Your task to perform on an android device: show emergency info Image 0: 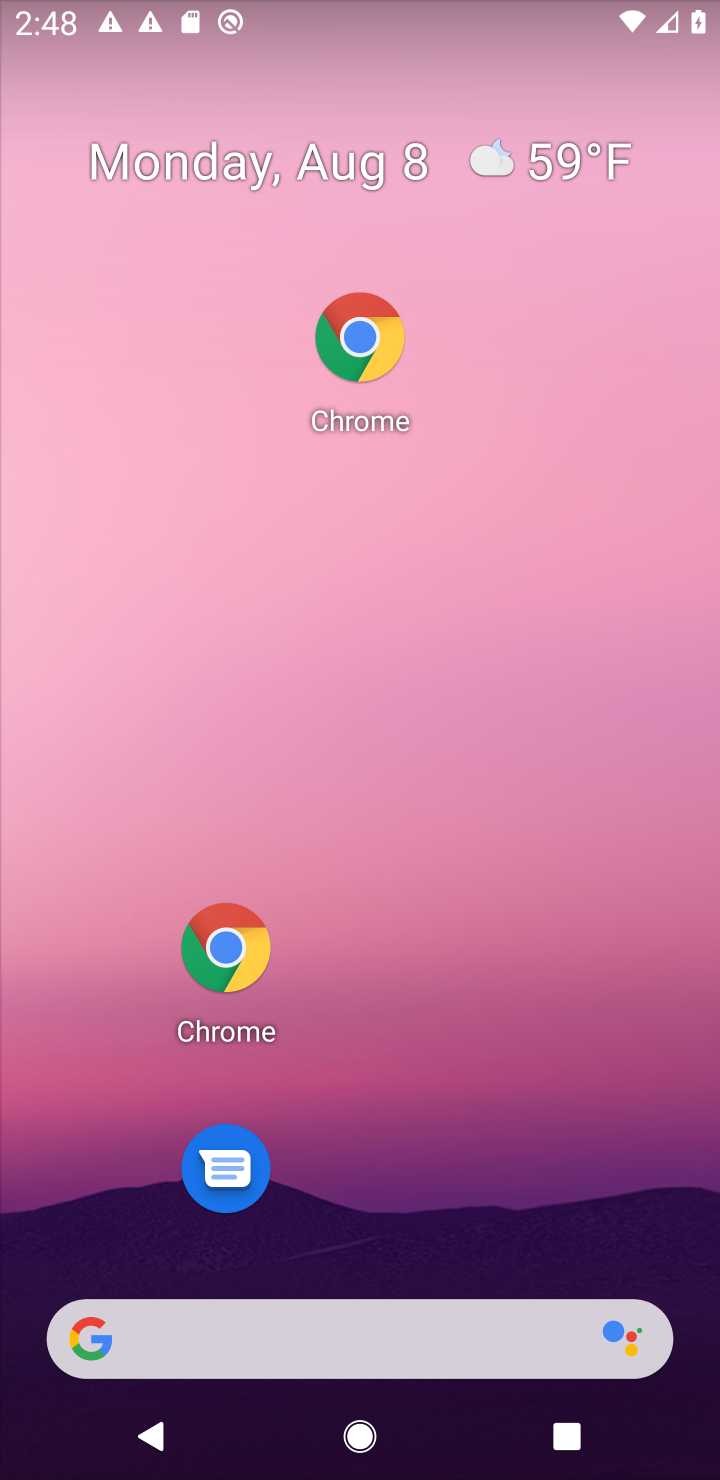
Step 0: drag from (504, 1238) to (458, 123)
Your task to perform on an android device: show emergency info Image 1: 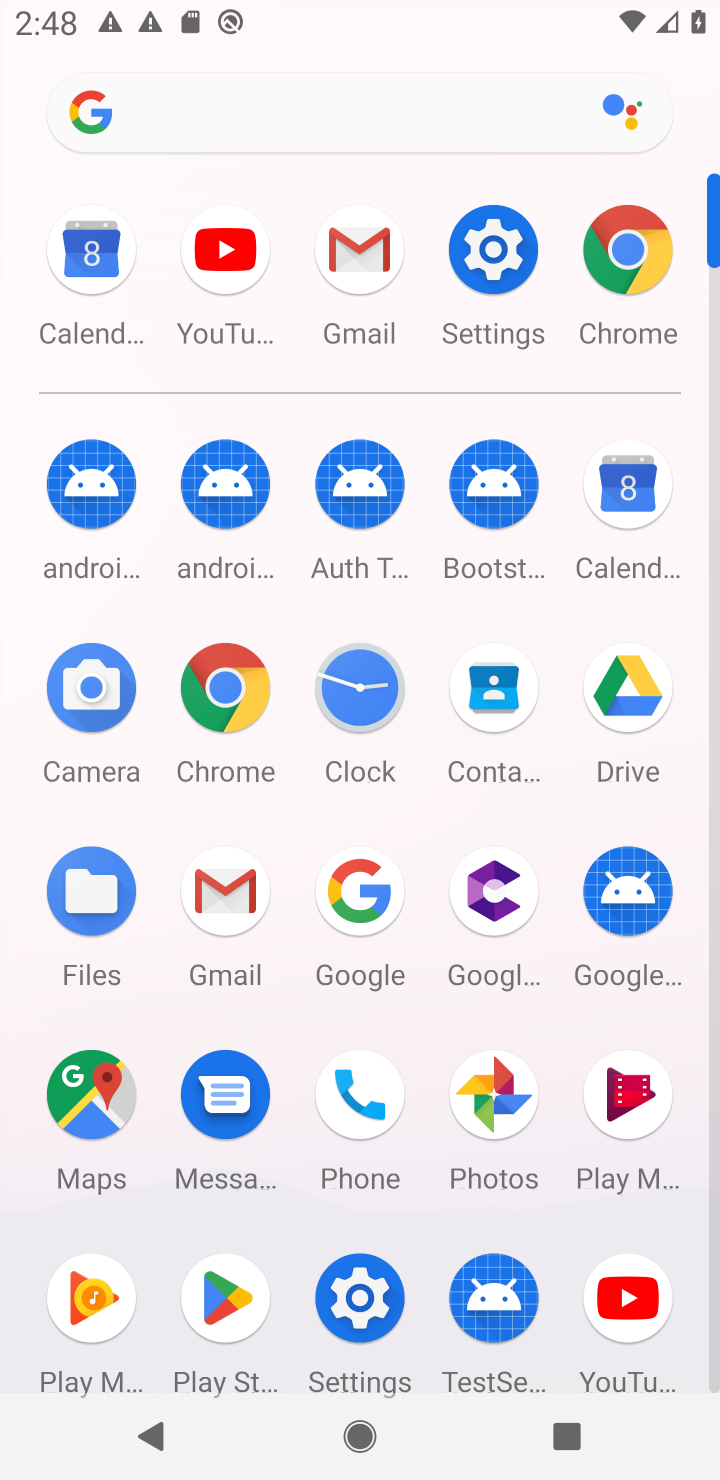
Step 1: click (505, 279)
Your task to perform on an android device: show emergency info Image 2: 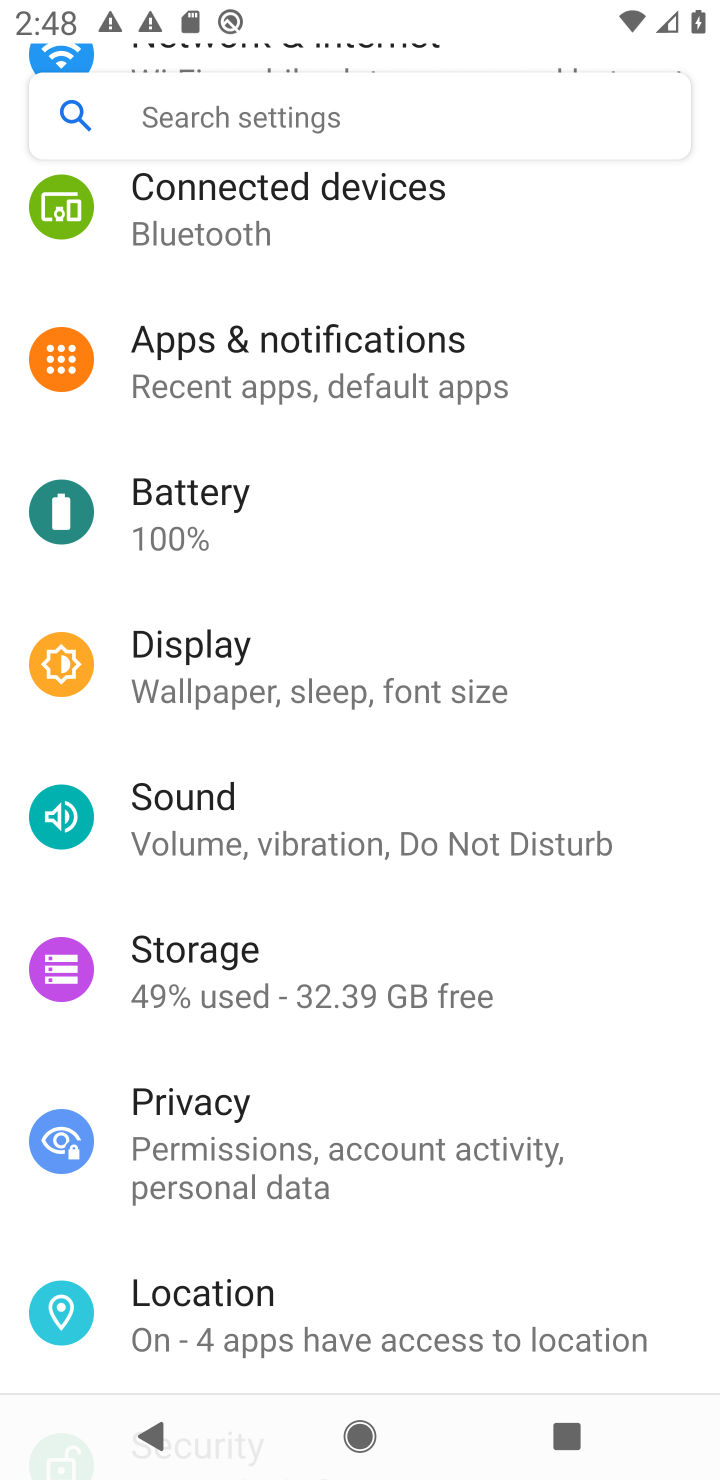
Step 2: drag from (384, 600) to (440, 1260)
Your task to perform on an android device: show emergency info Image 3: 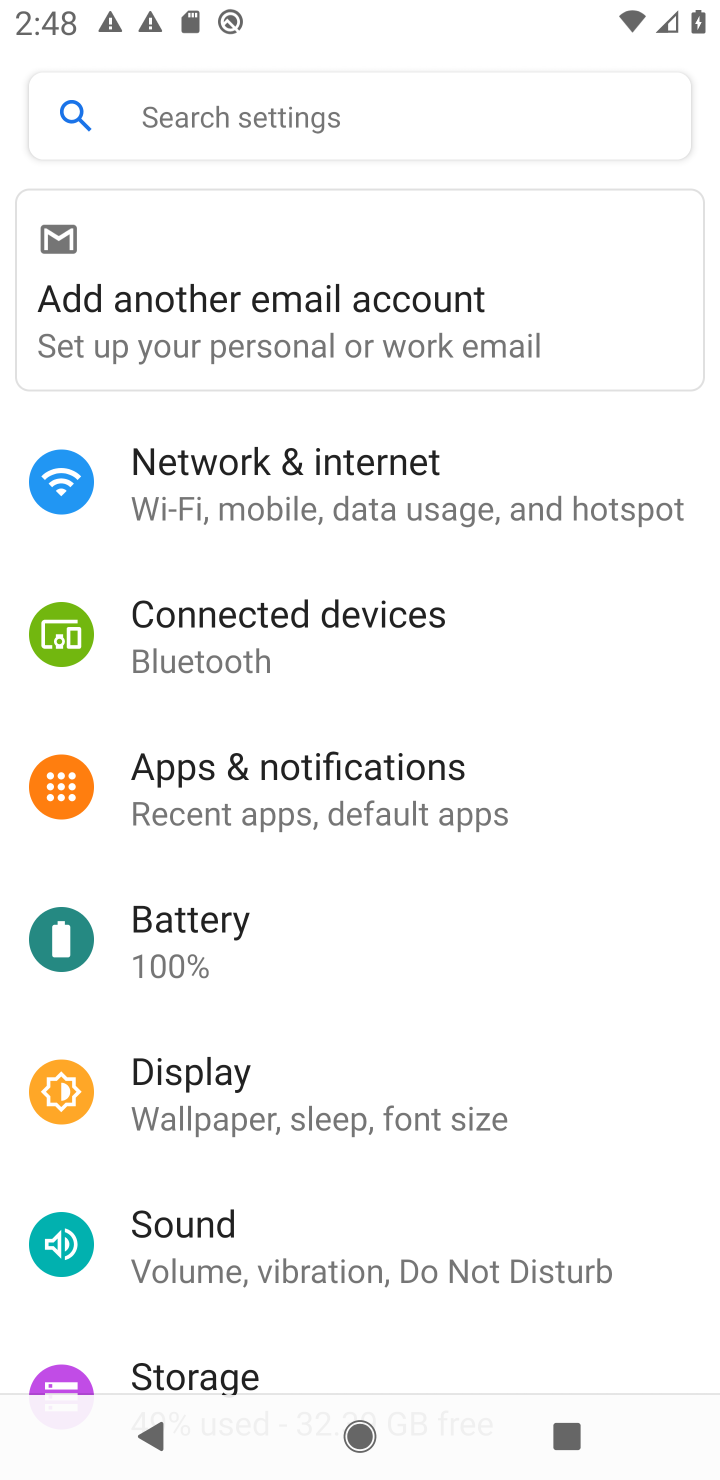
Step 3: drag from (440, 1260) to (399, 599)
Your task to perform on an android device: show emergency info Image 4: 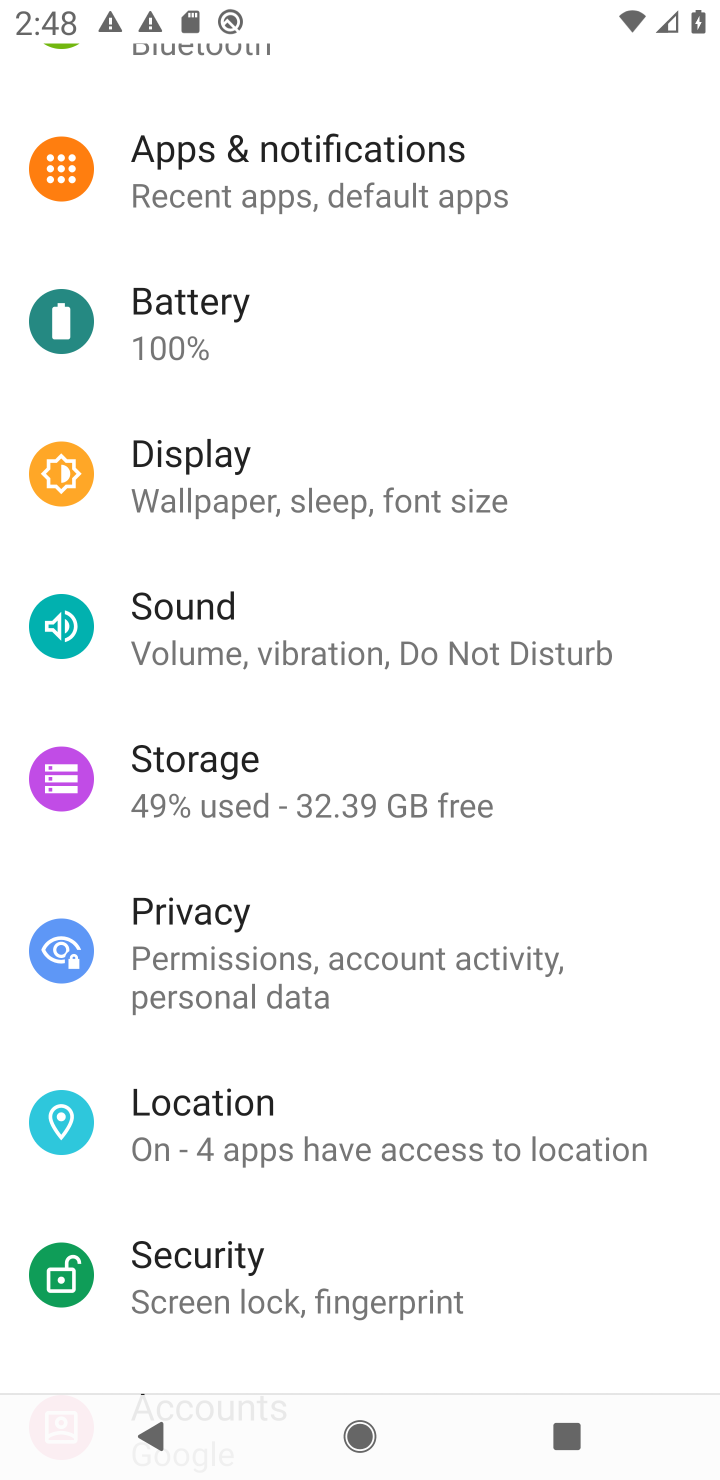
Step 4: drag from (428, 1030) to (389, 649)
Your task to perform on an android device: show emergency info Image 5: 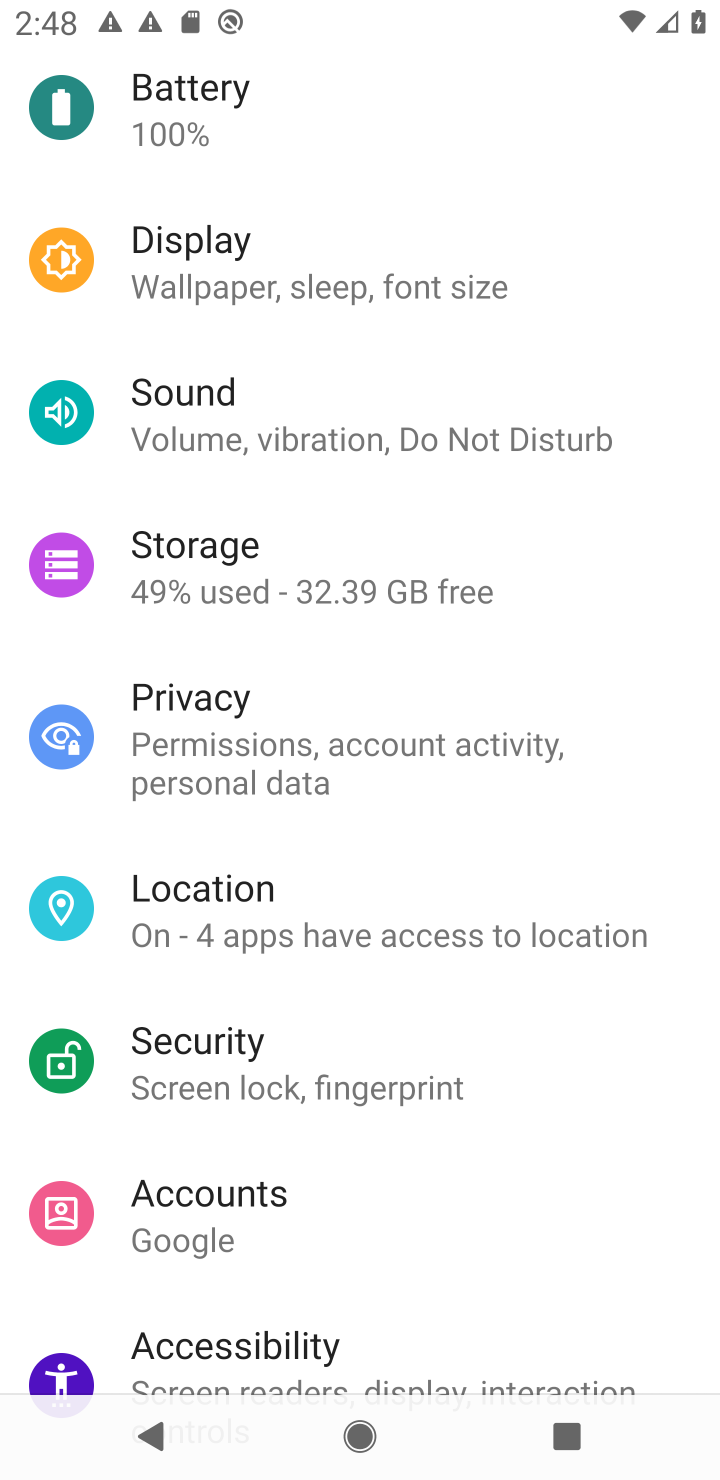
Step 5: drag from (426, 1228) to (384, 737)
Your task to perform on an android device: show emergency info Image 6: 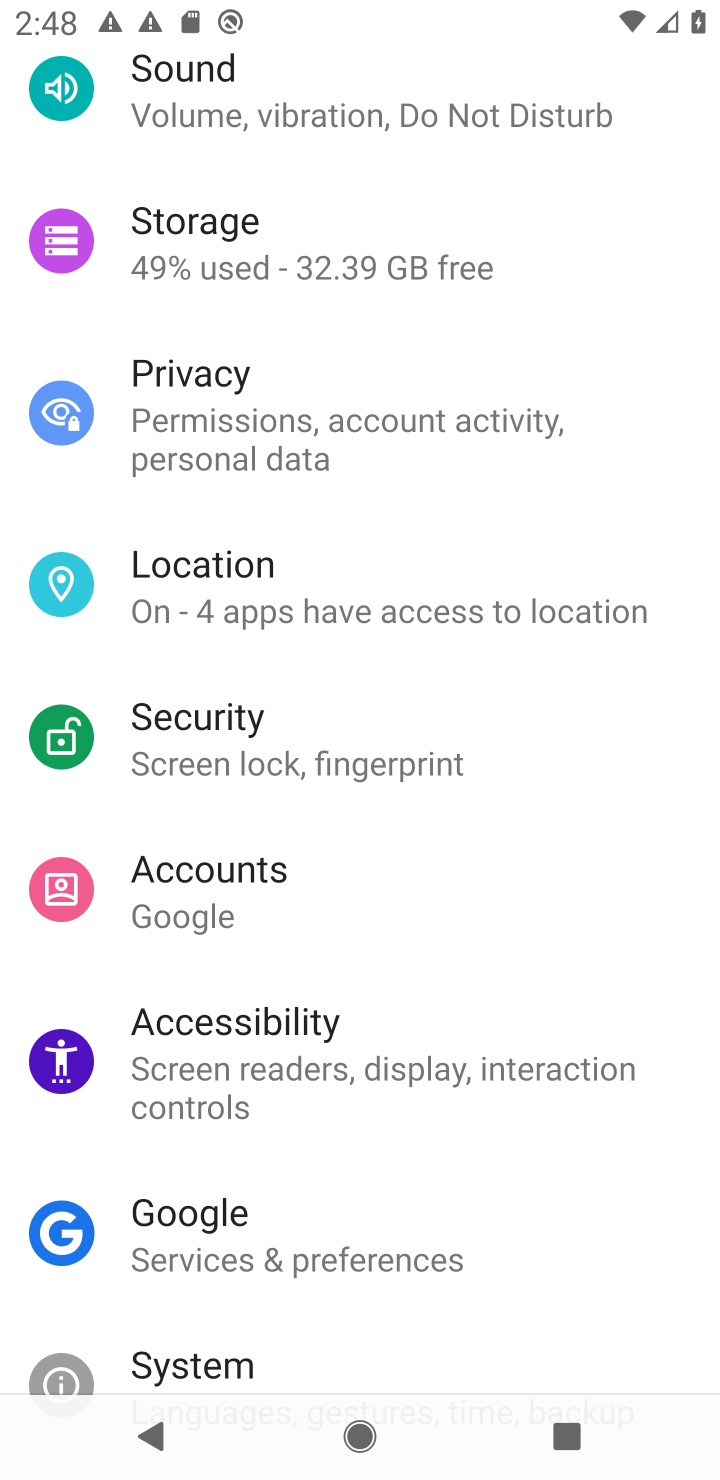
Step 6: drag from (378, 1240) to (383, 310)
Your task to perform on an android device: show emergency info Image 7: 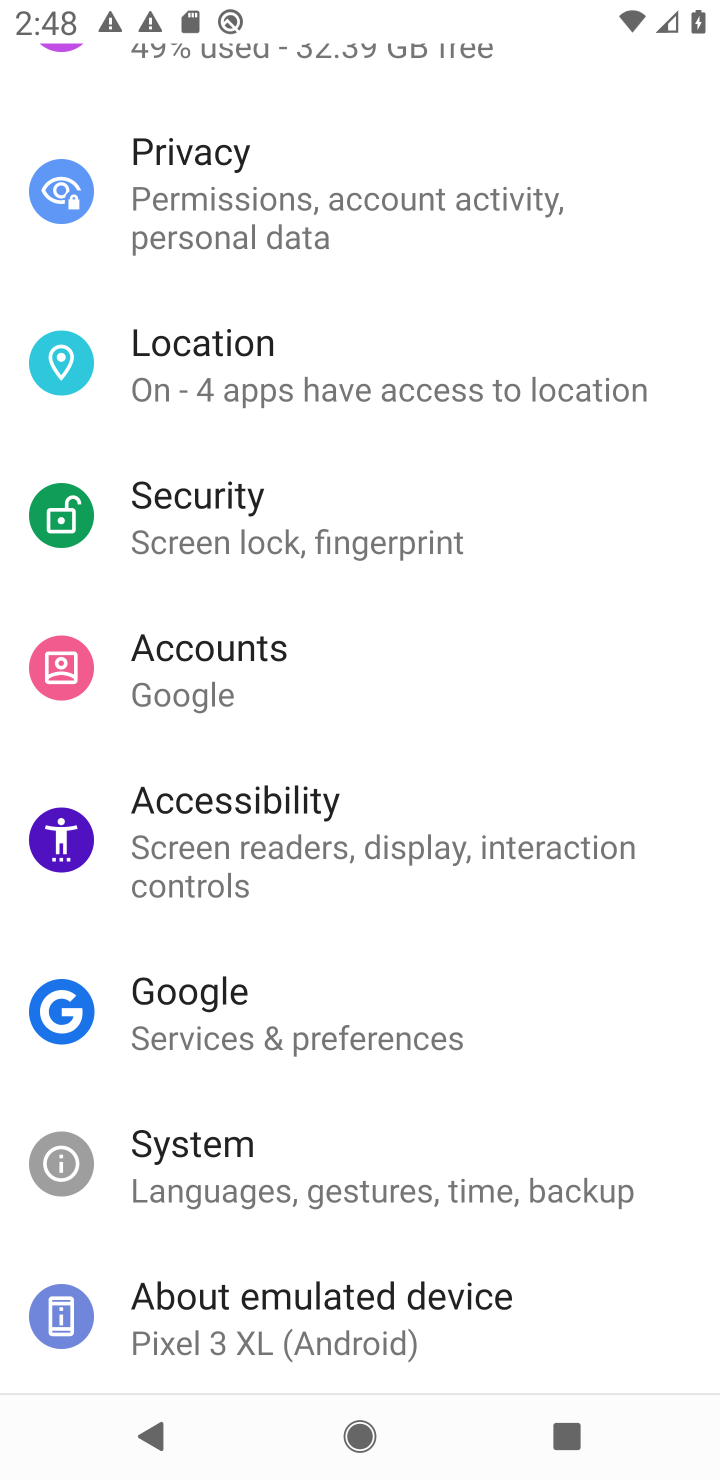
Step 7: click (412, 1193)
Your task to perform on an android device: show emergency info Image 8: 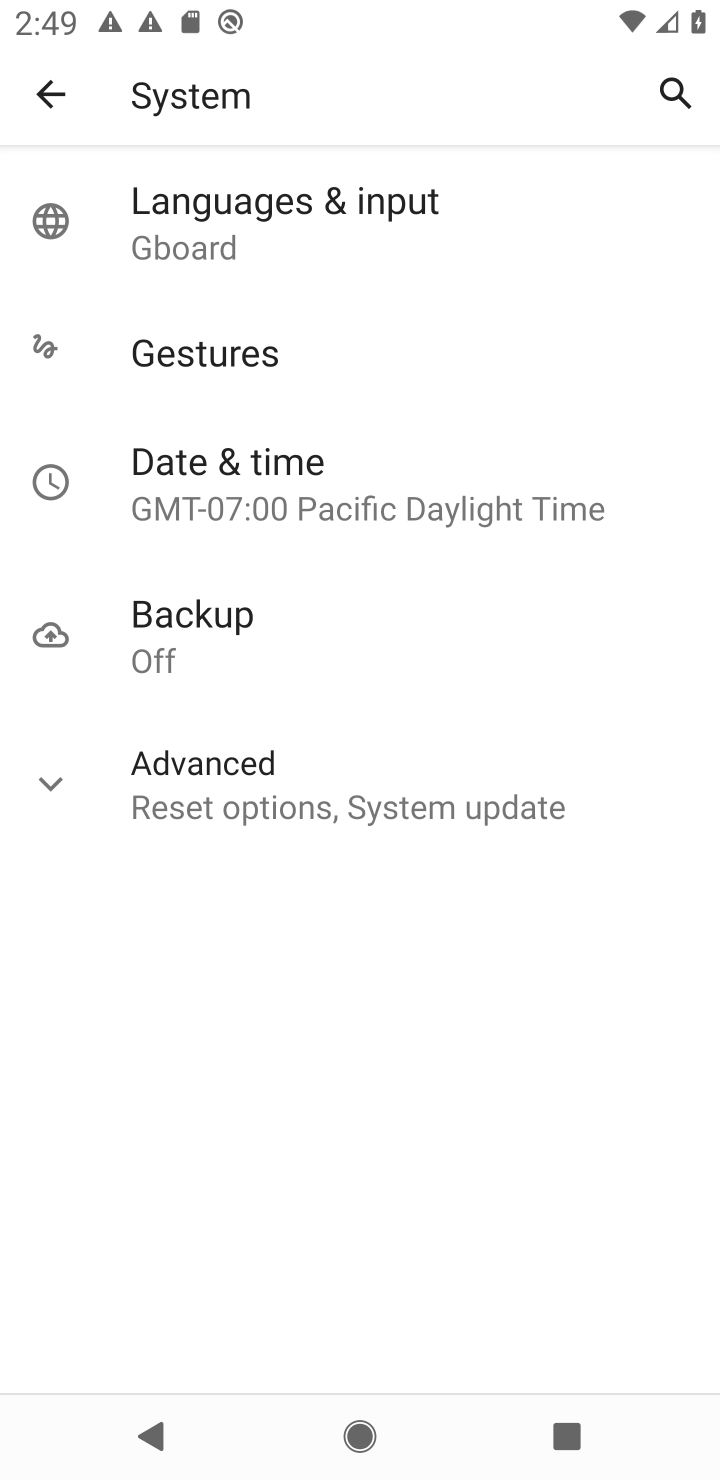
Step 8: task complete